Your task to perform on an android device: Show the shopping cart on ebay. Search for amazon basics triple a on ebay, select the first entry, add it to the cart, then select checkout. Image 0: 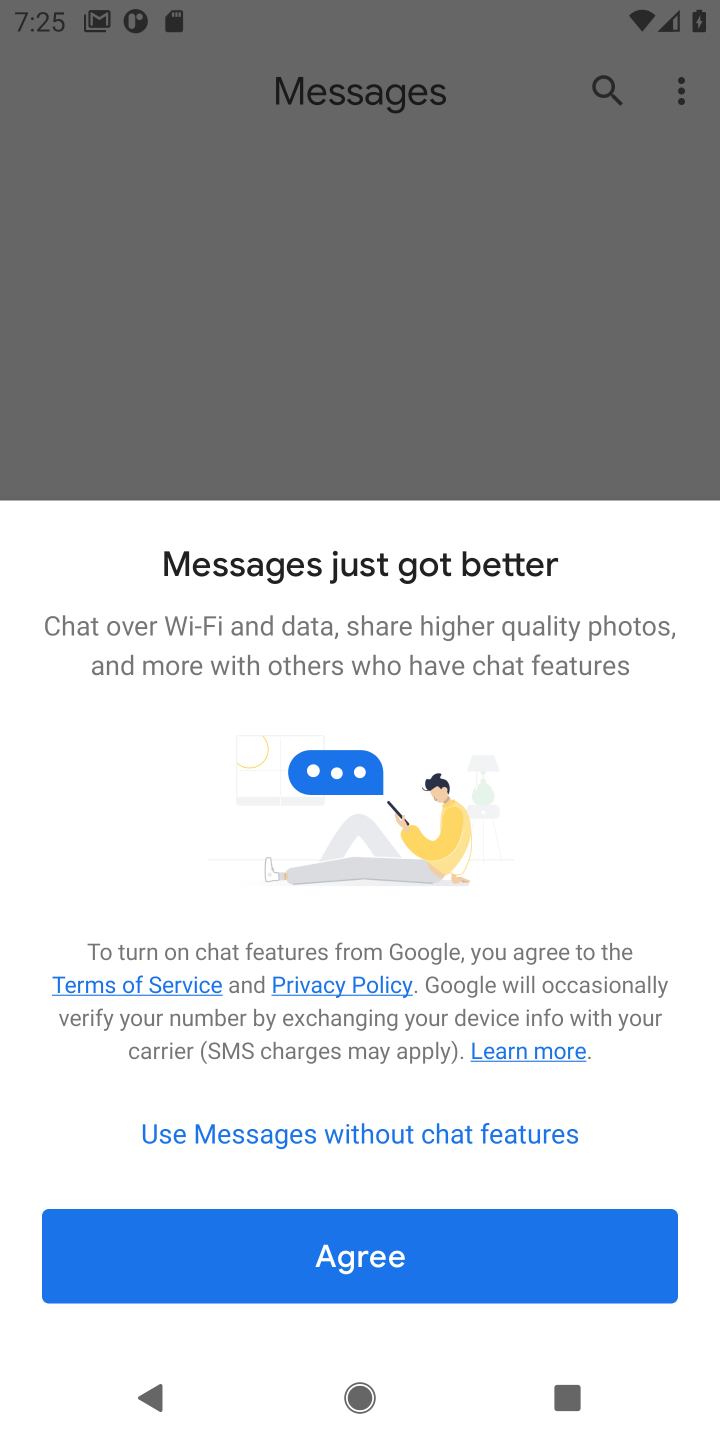
Step 0: press home button
Your task to perform on an android device: Show the shopping cart on ebay. Search for amazon basics triple a on ebay, select the first entry, add it to the cart, then select checkout. Image 1: 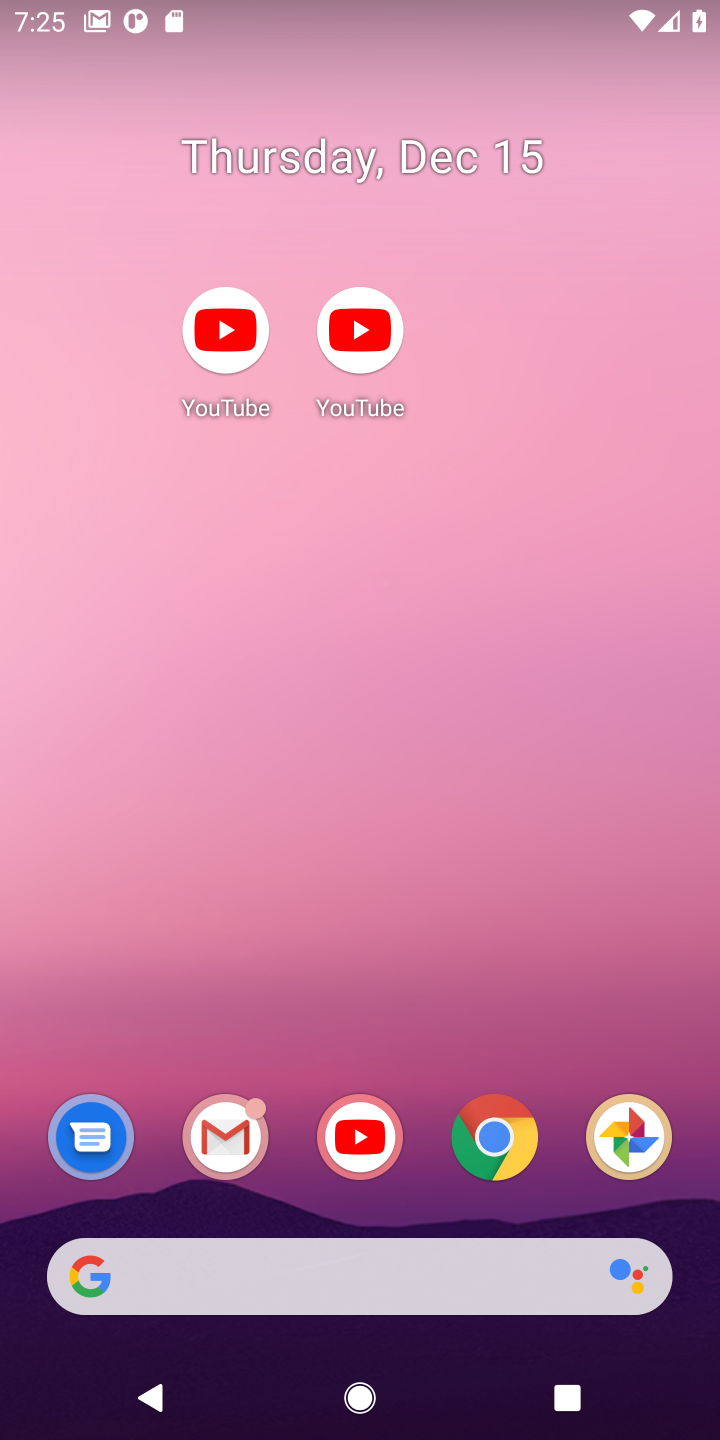
Step 1: drag from (306, 1148) to (352, 613)
Your task to perform on an android device: Show the shopping cart on ebay. Search for amazon basics triple a on ebay, select the first entry, add it to the cart, then select checkout. Image 2: 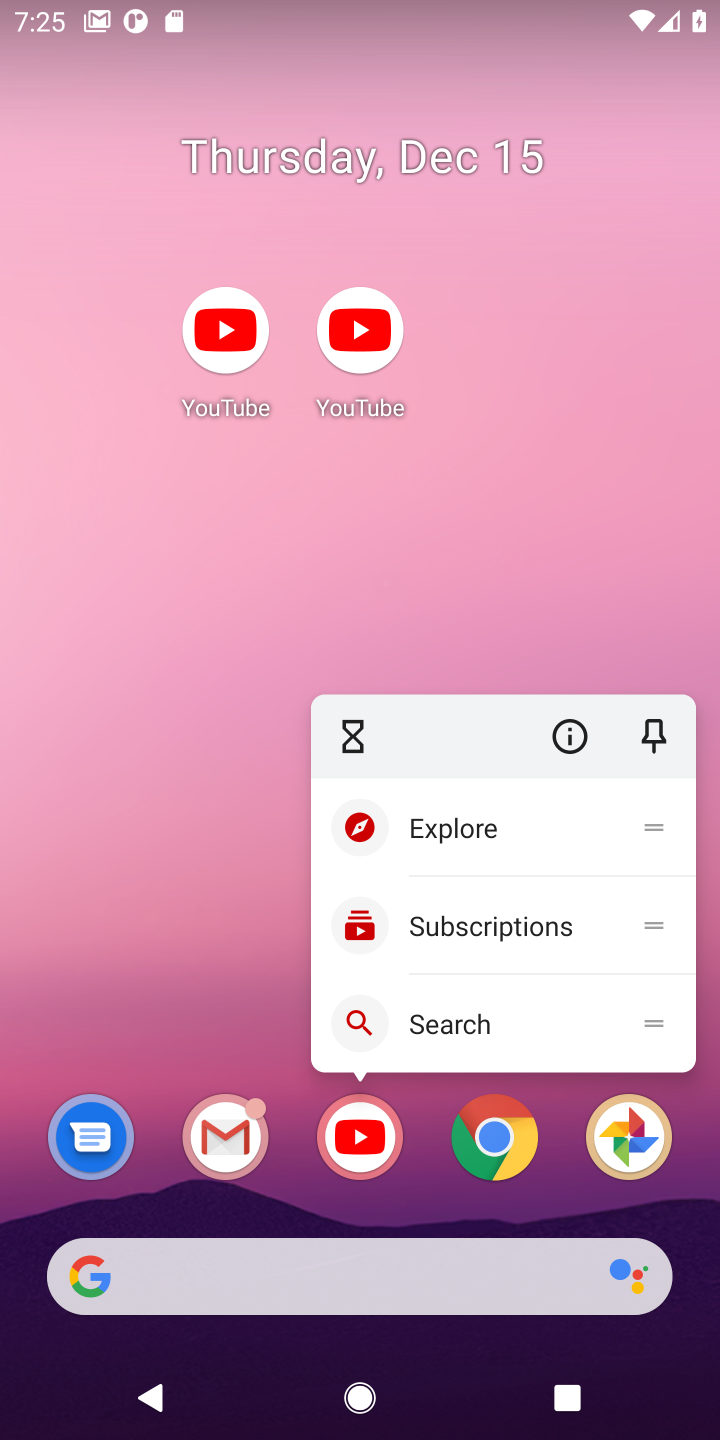
Step 2: click (173, 914)
Your task to perform on an android device: Show the shopping cart on ebay. Search for amazon basics triple a on ebay, select the first entry, add it to the cart, then select checkout. Image 3: 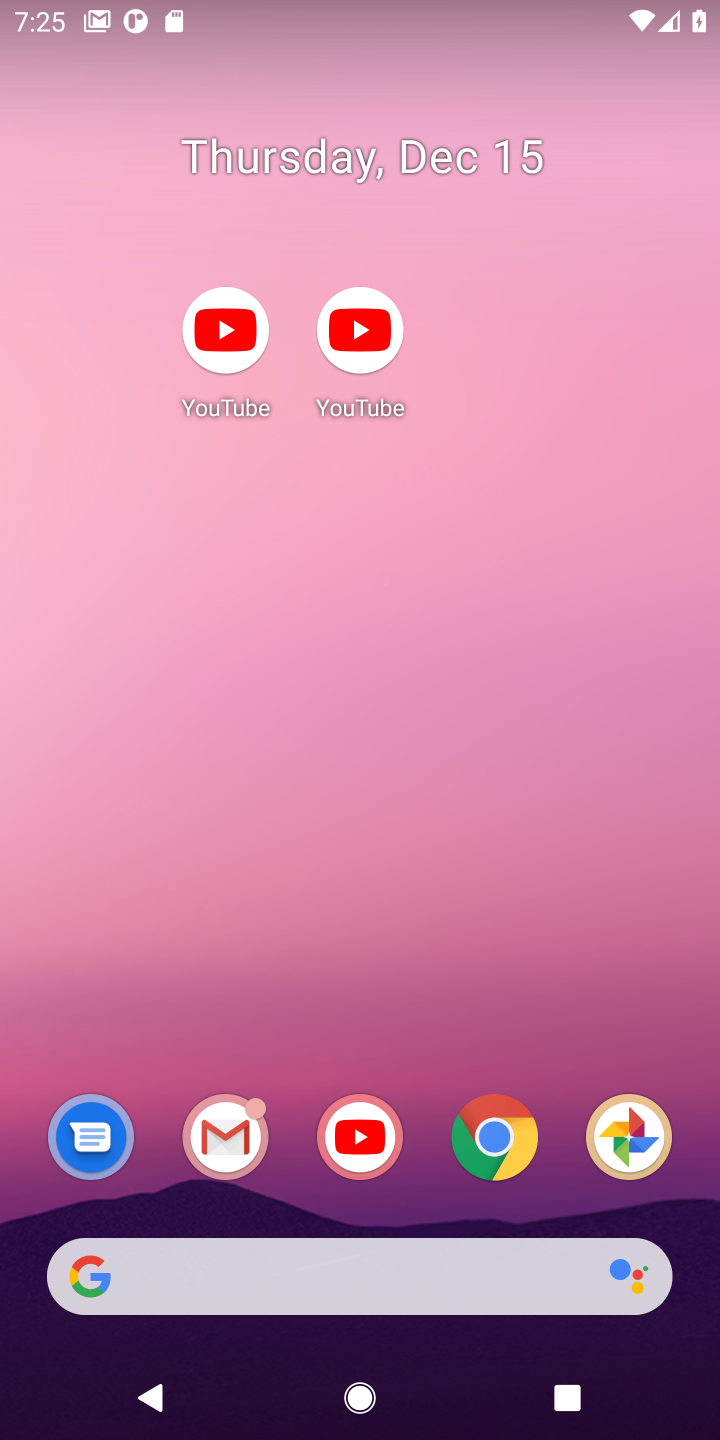
Step 3: drag from (236, 761) to (236, 563)
Your task to perform on an android device: Show the shopping cart on ebay. Search for amazon basics triple a on ebay, select the first entry, add it to the cart, then select checkout. Image 4: 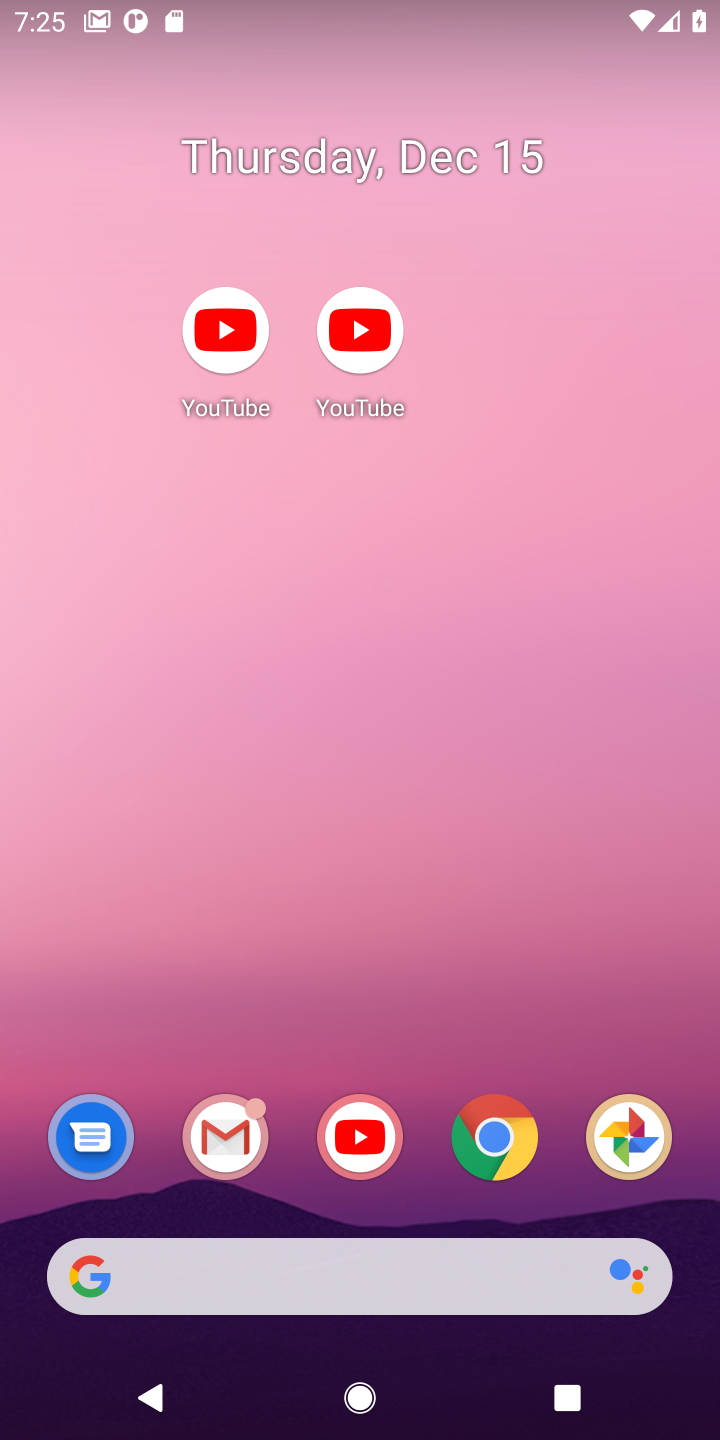
Step 4: drag from (303, 1235) to (315, 275)
Your task to perform on an android device: Show the shopping cart on ebay. Search for amazon basics triple a on ebay, select the first entry, add it to the cart, then select checkout. Image 5: 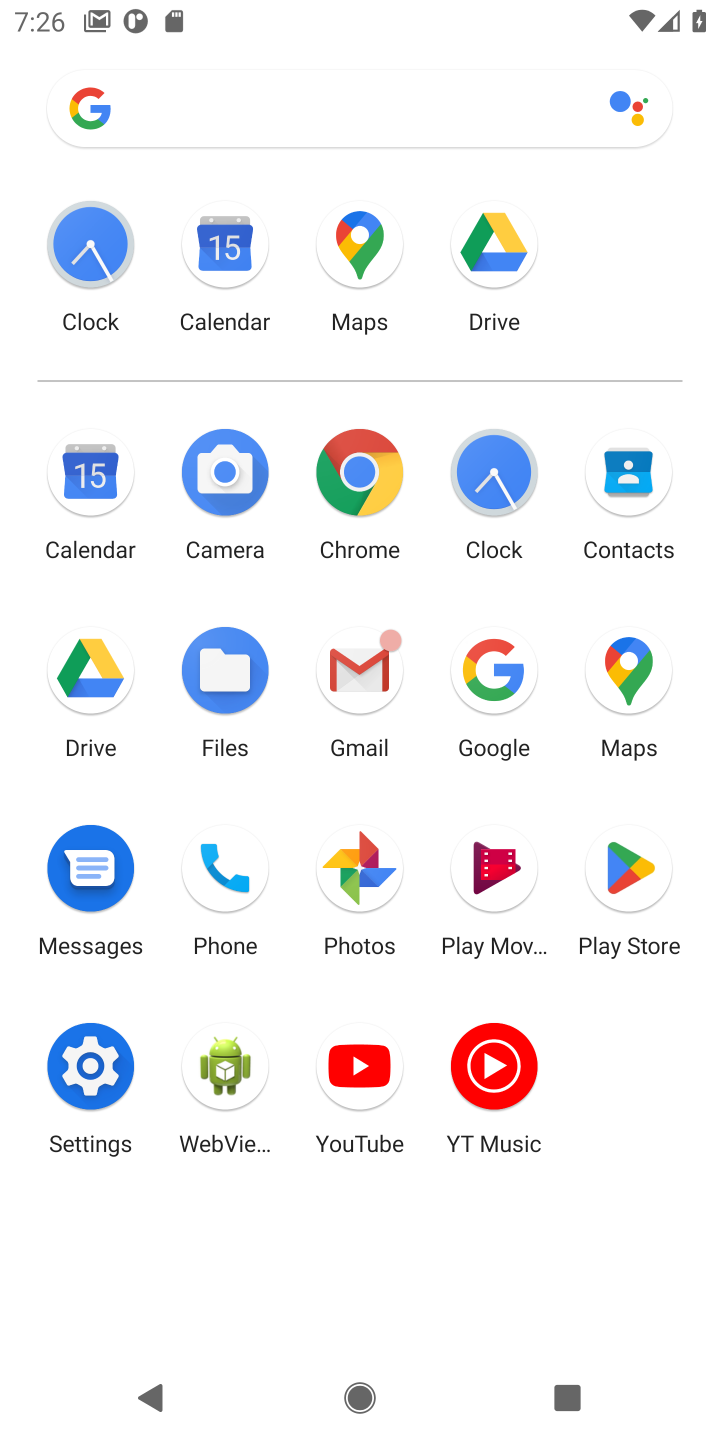
Step 5: click (482, 676)
Your task to perform on an android device: Show the shopping cart on ebay. Search for amazon basics triple a on ebay, select the first entry, add it to the cart, then select checkout. Image 6: 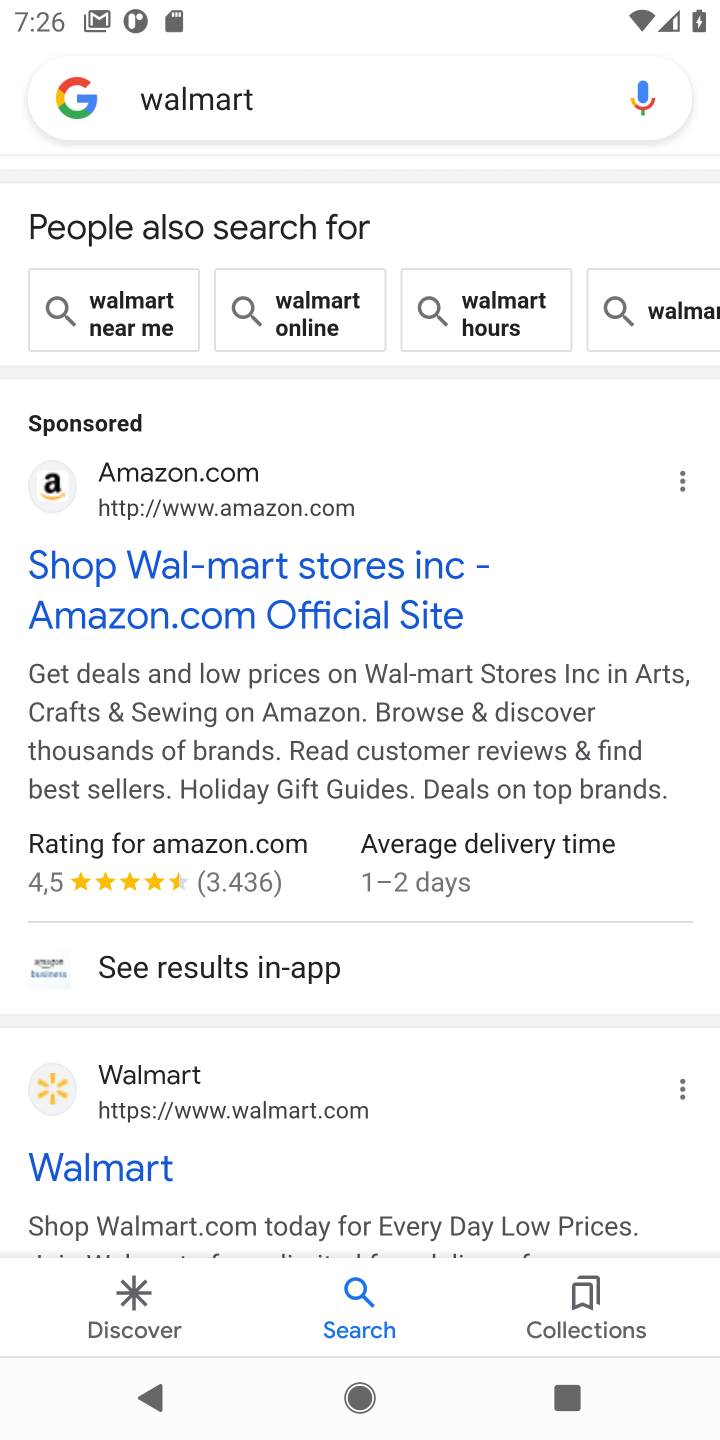
Step 6: click (156, 103)
Your task to perform on an android device: Show the shopping cart on ebay. Search for amazon basics triple a on ebay, select the first entry, add it to the cart, then select checkout. Image 7: 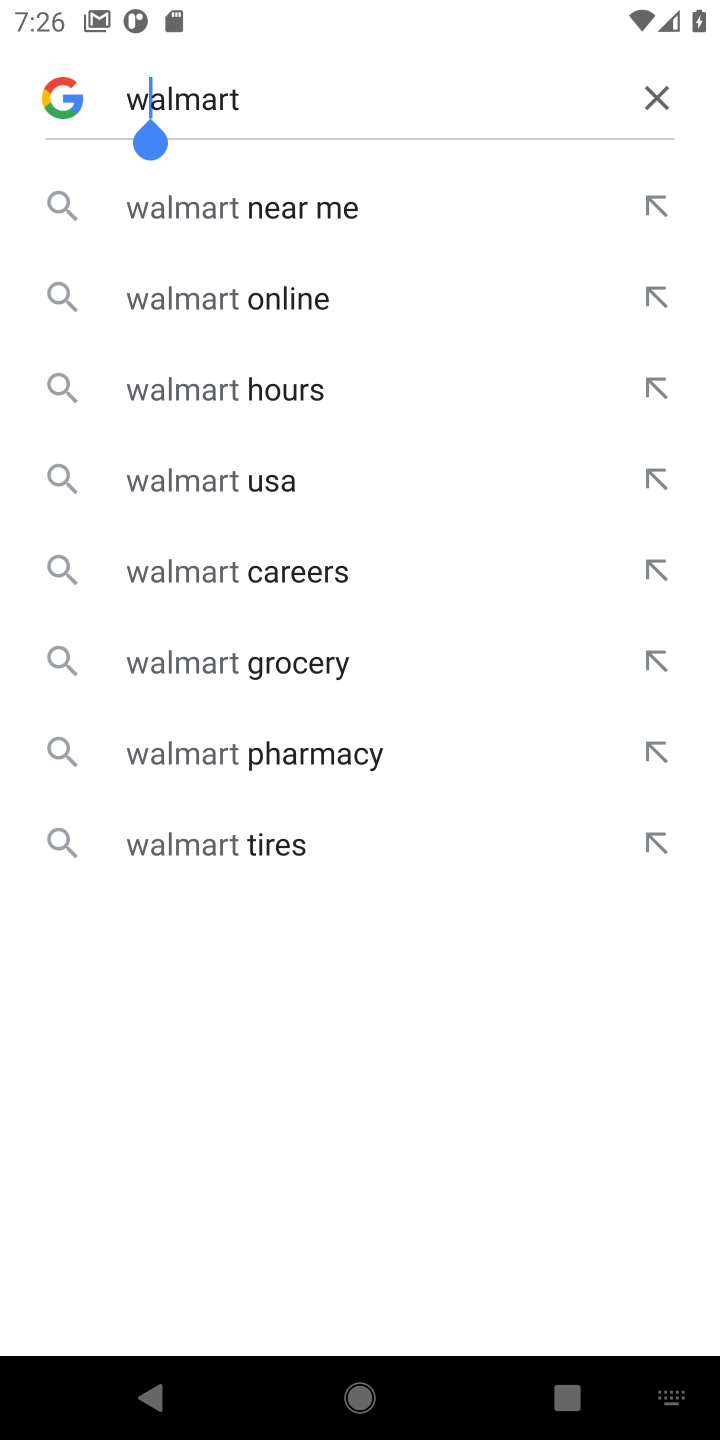
Step 7: click (649, 97)
Your task to perform on an android device: Show the shopping cart on ebay. Search for amazon basics triple a on ebay, select the first entry, add it to the cart, then select checkout. Image 8: 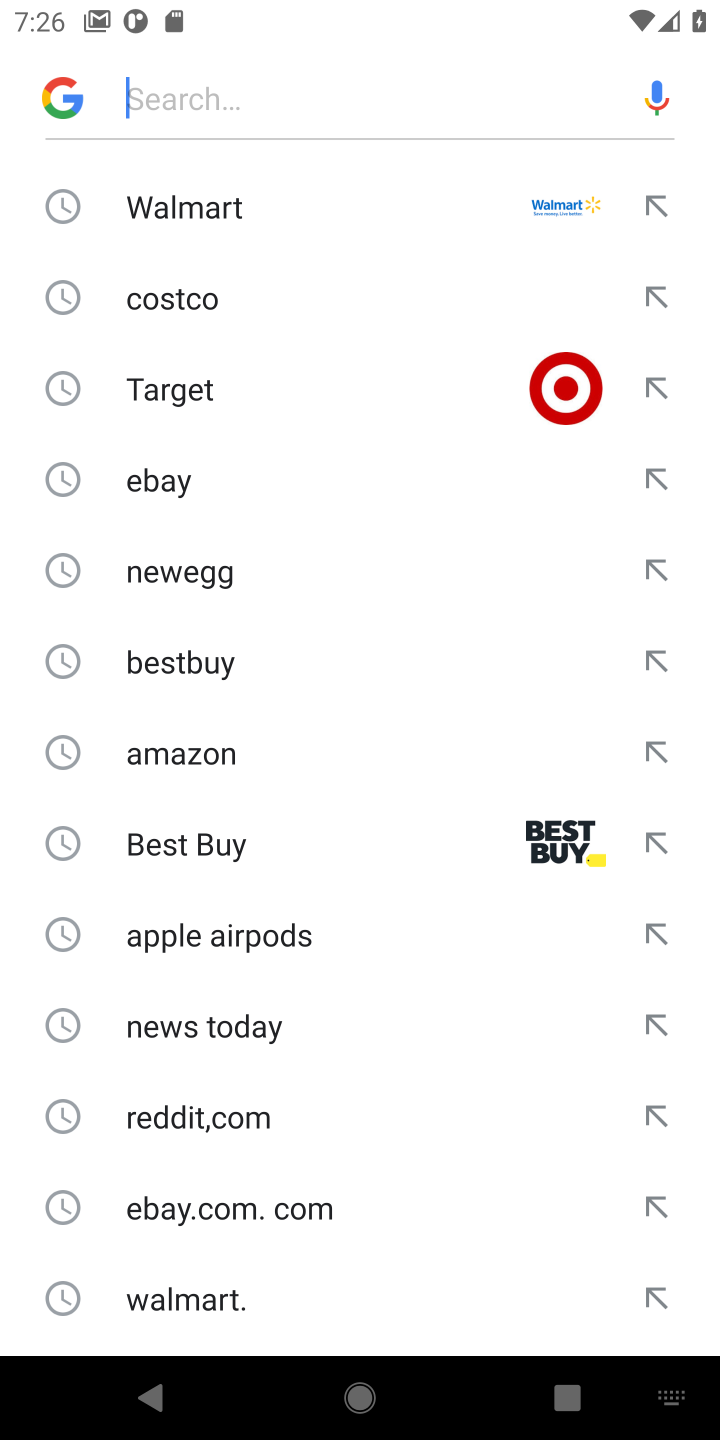
Step 8: click (170, 469)
Your task to perform on an android device: Show the shopping cart on ebay. Search for amazon basics triple a on ebay, select the first entry, add it to the cart, then select checkout. Image 9: 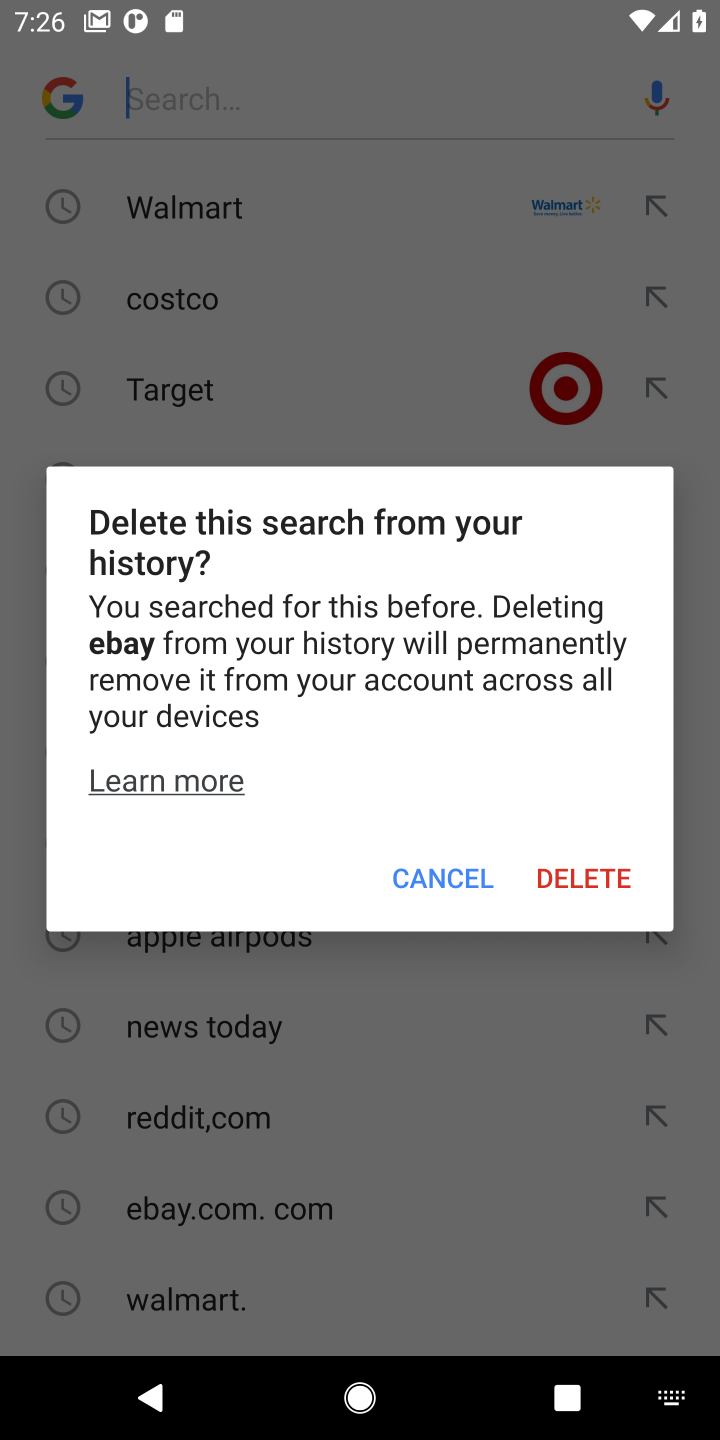
Step 9: click (441, 888)
Your task to perform on an android device: Show the shopping cart on ebay. Search for amazon basics triple a on ebay, select the first entry, add it to the cart, then select checkout. Image 10: 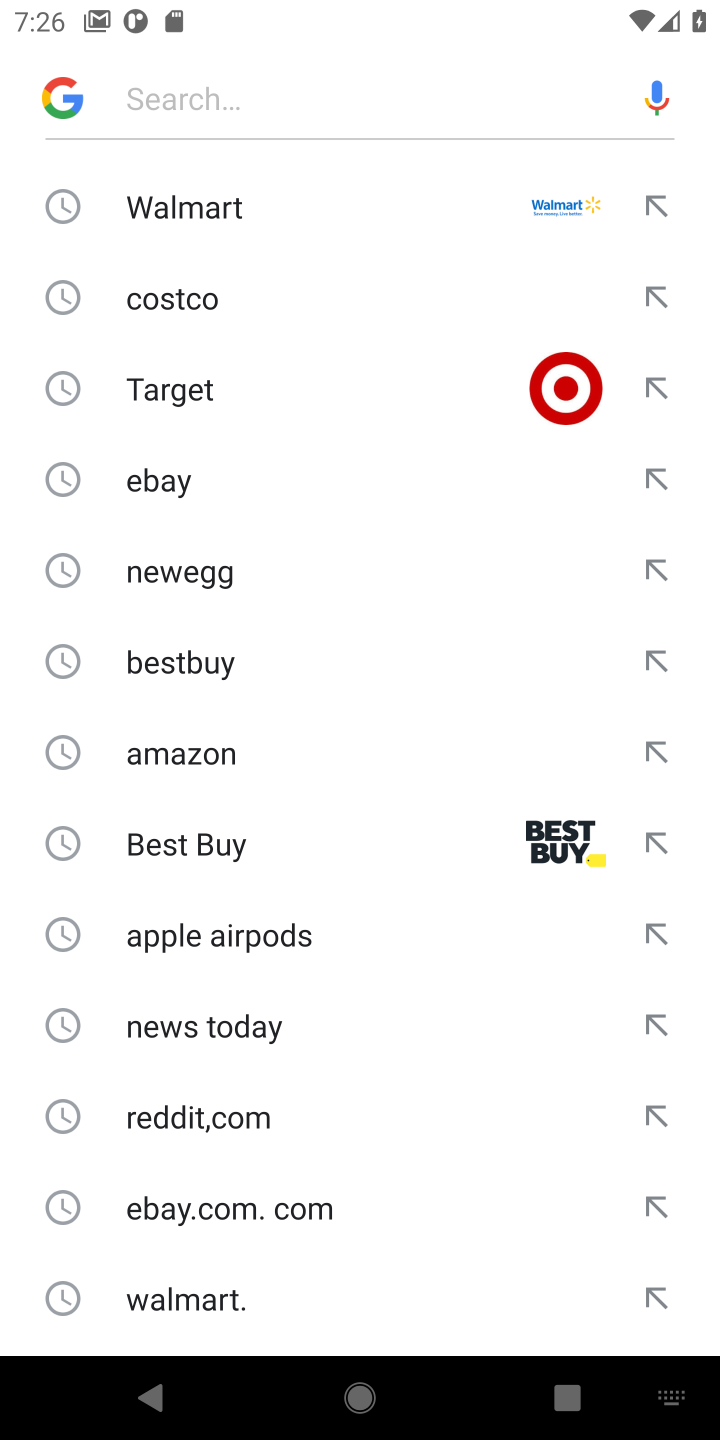
Step 10: click (669, 492)
Your task to perform on an android device: Show the shopping cart on ebay. Search for amazon basics triple a on ebay, select the first entry, add it to the cart, then select checkout. Image 11: 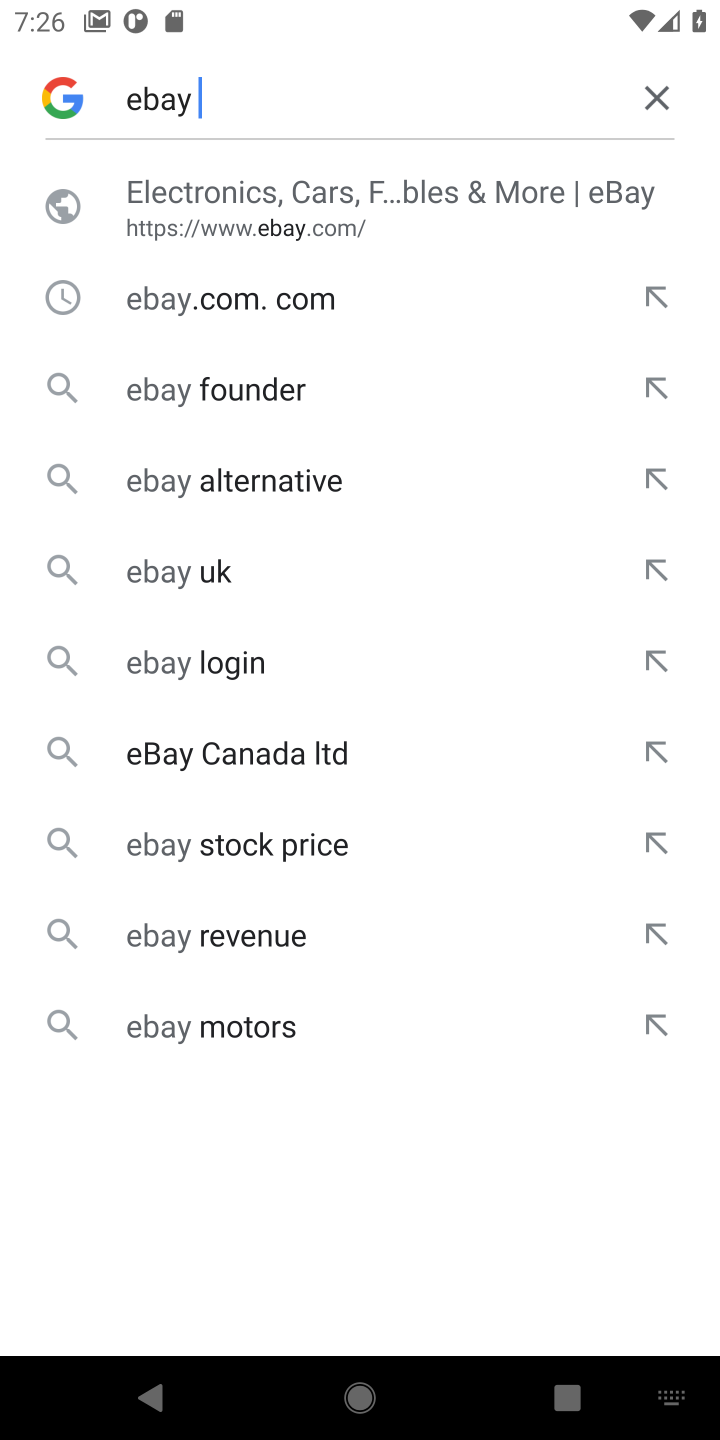
Step 11: click (250, 226)
Your task to perform on an android device: Show the shopping cart on ebay. Search for amazon basics triple a on ebay, select the first entry, add it to the cart, then select checkout. Image 12: 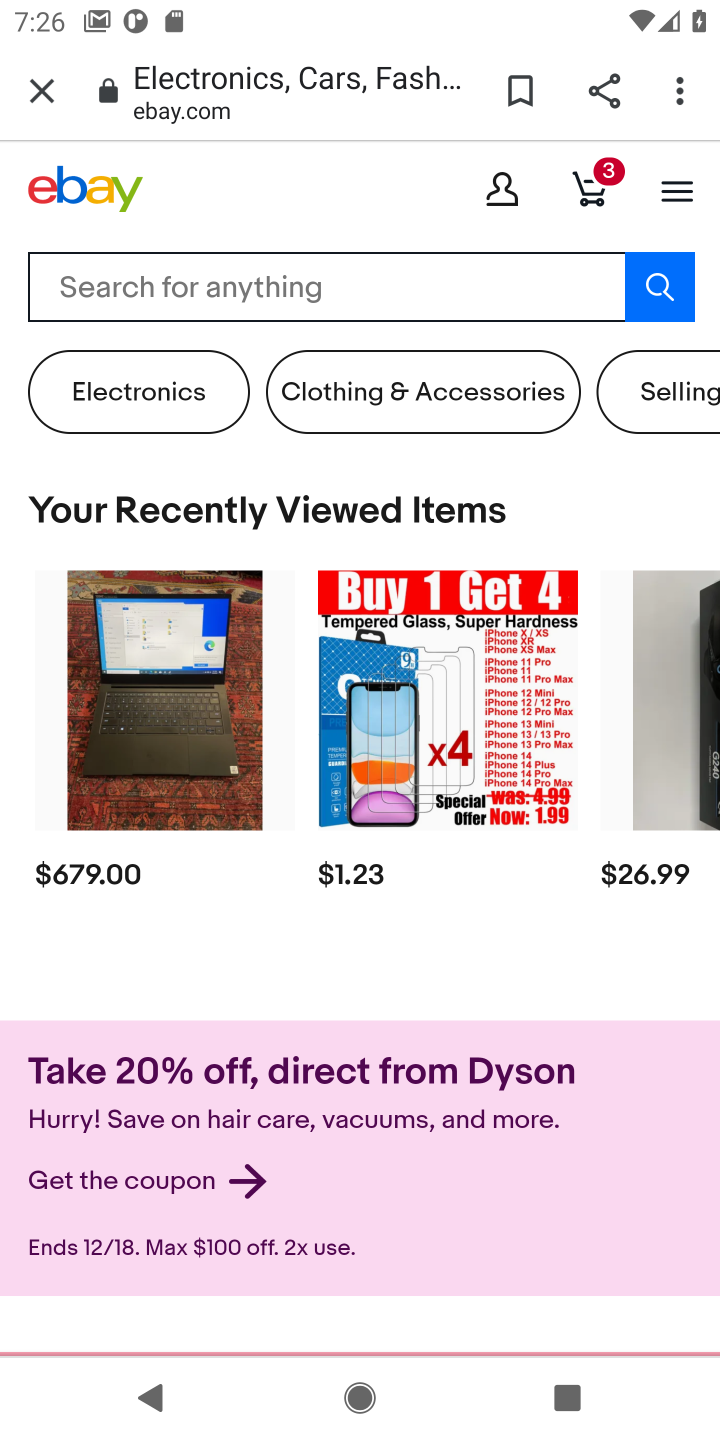
Step 12: click (589, 183)
Your task to perform on an android device: Show the shopping cart on ebay. Search for amazon basics triple a on ebay, select the first entry, add it to the cart, then select checkout. Image 13: 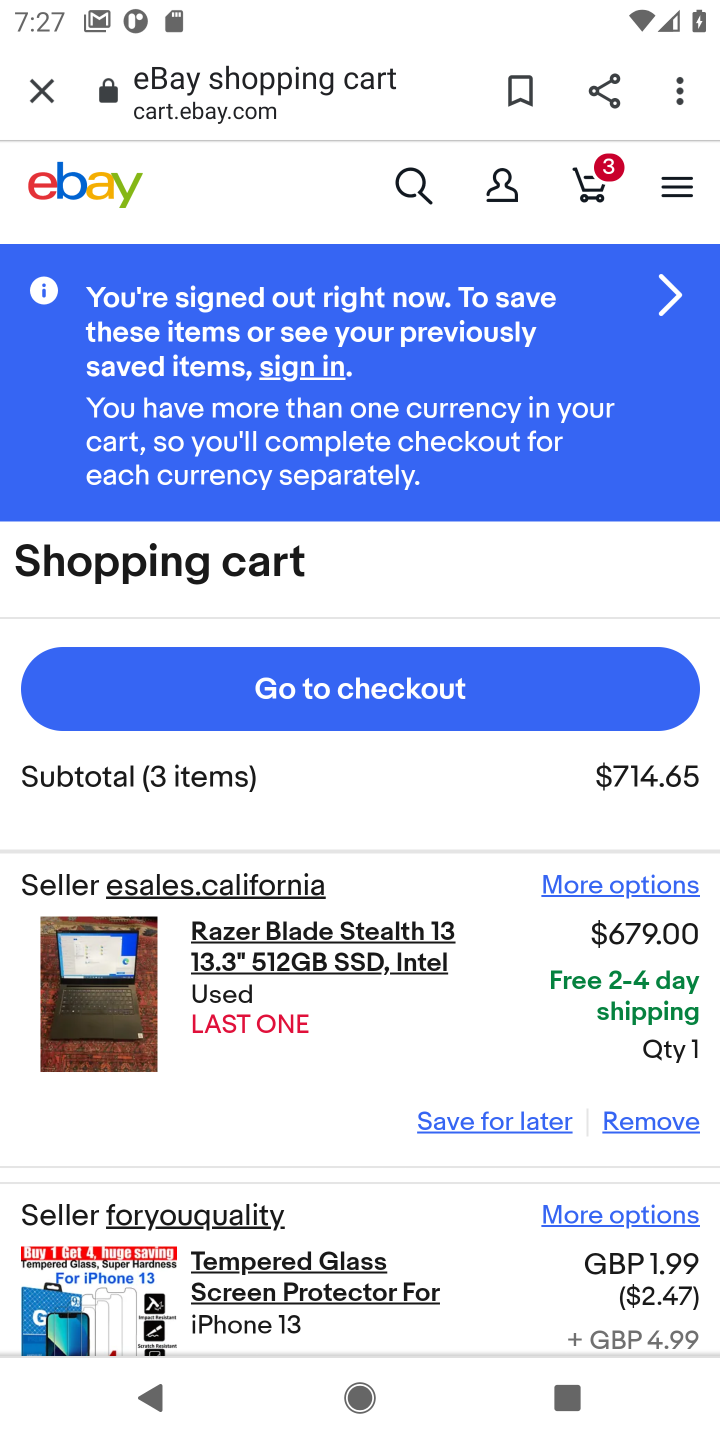
Step 13: click (425, 174)
Your task to perform on an android device: Show the shopping cart on ebay. Search for amazon basics triple a on ebay, select the first entry, add it to the cart, then select checkout. Image 14: 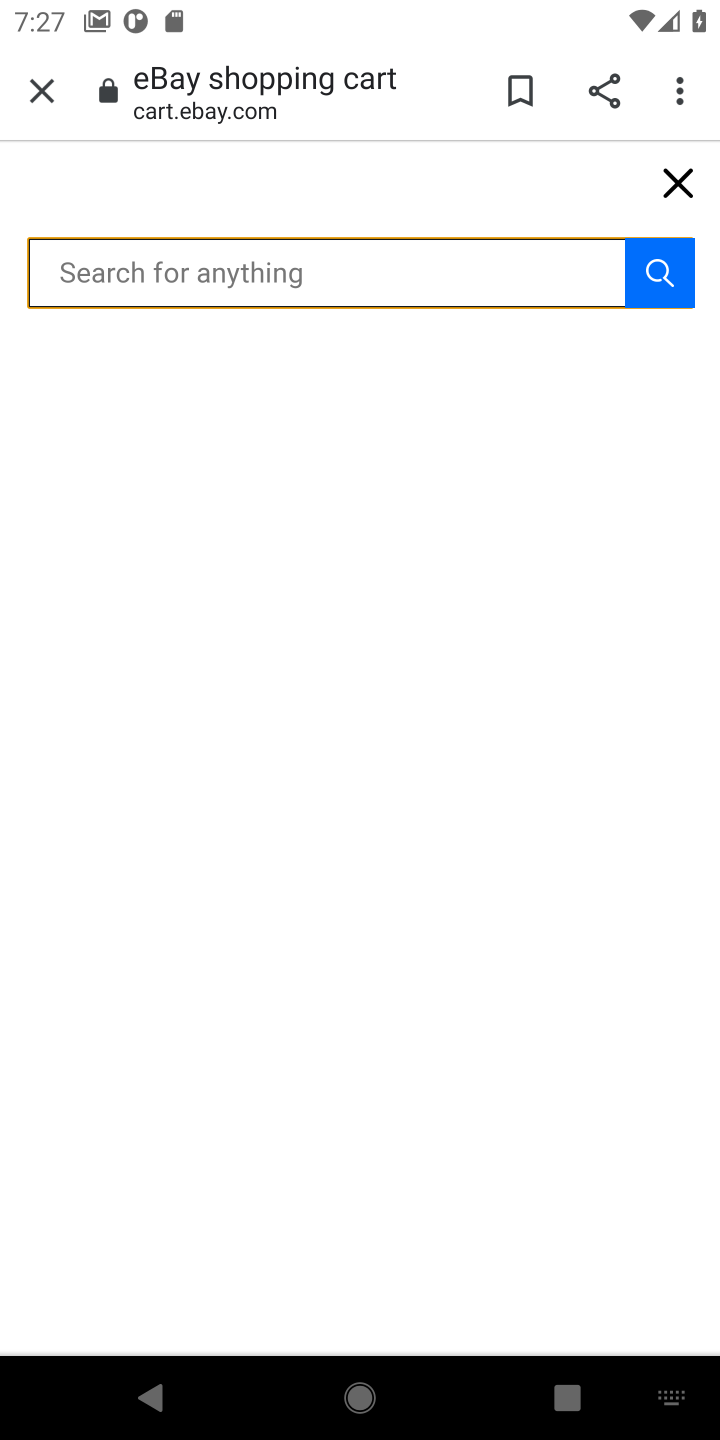
Step 14: type "amazon basics triple a"
Your task to perform on an android device: Show the shopping cart on ebay. Search for amazon basics triple a on ebay, select the first entry, add it to the cart, then select checkout. Image 15: 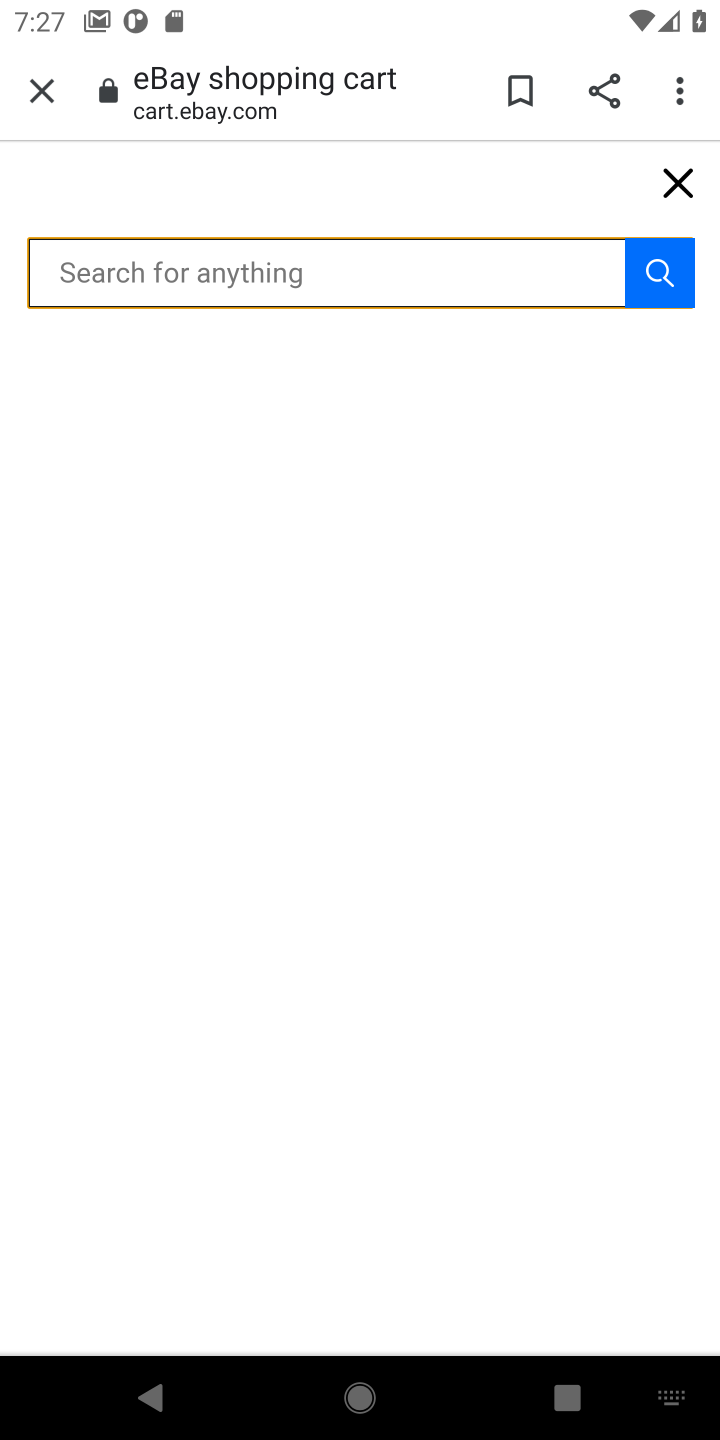
Step 15: click (664, 278)
Your task to perform on an android device: Show the shopping cart on ebay. Search for amazon basics triple a on ebay, select the first entry, add it to the cart, then select checkout. Image 16: 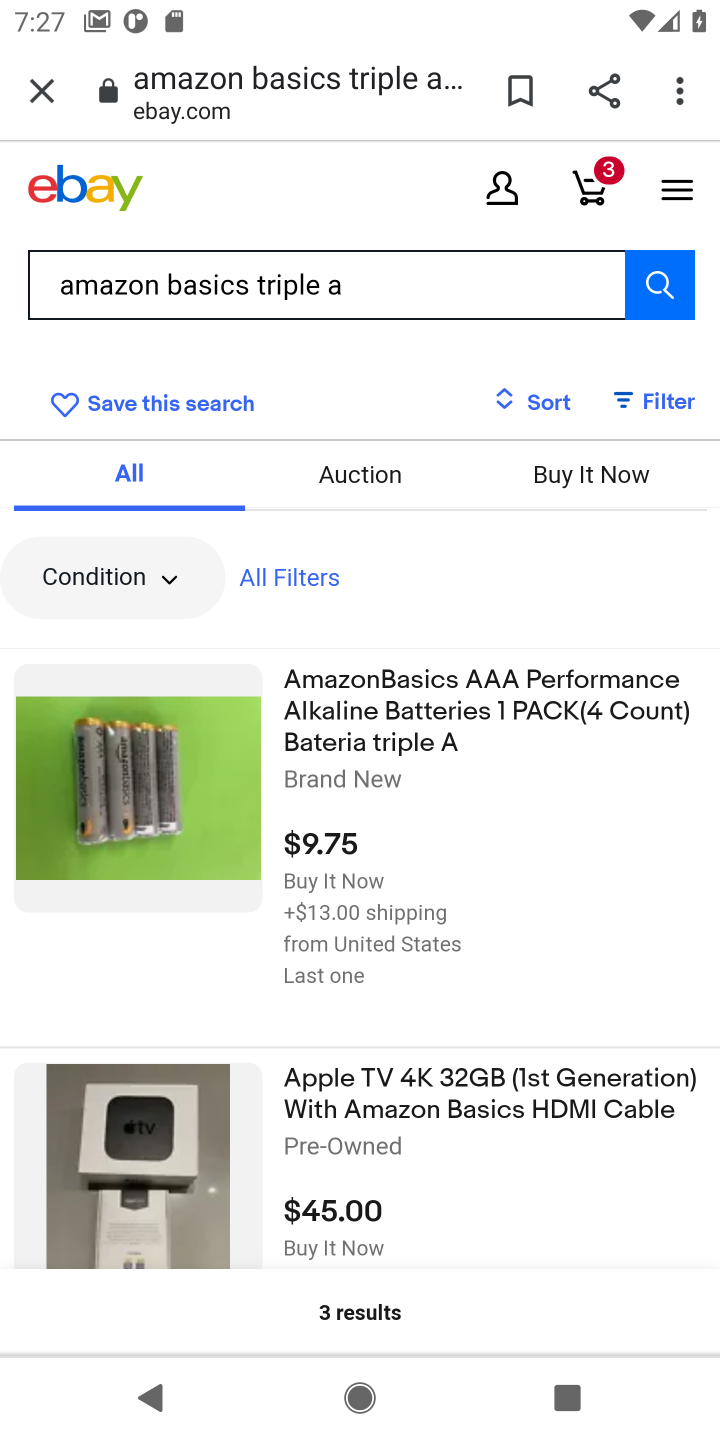
Step 16: click (429, 710)
Your task to perform on an android device: Show the shopping cart on ebay. Search for amazon basics triple a on ebay, select the first entry, add it to the cart, then select checkout. Image 17: 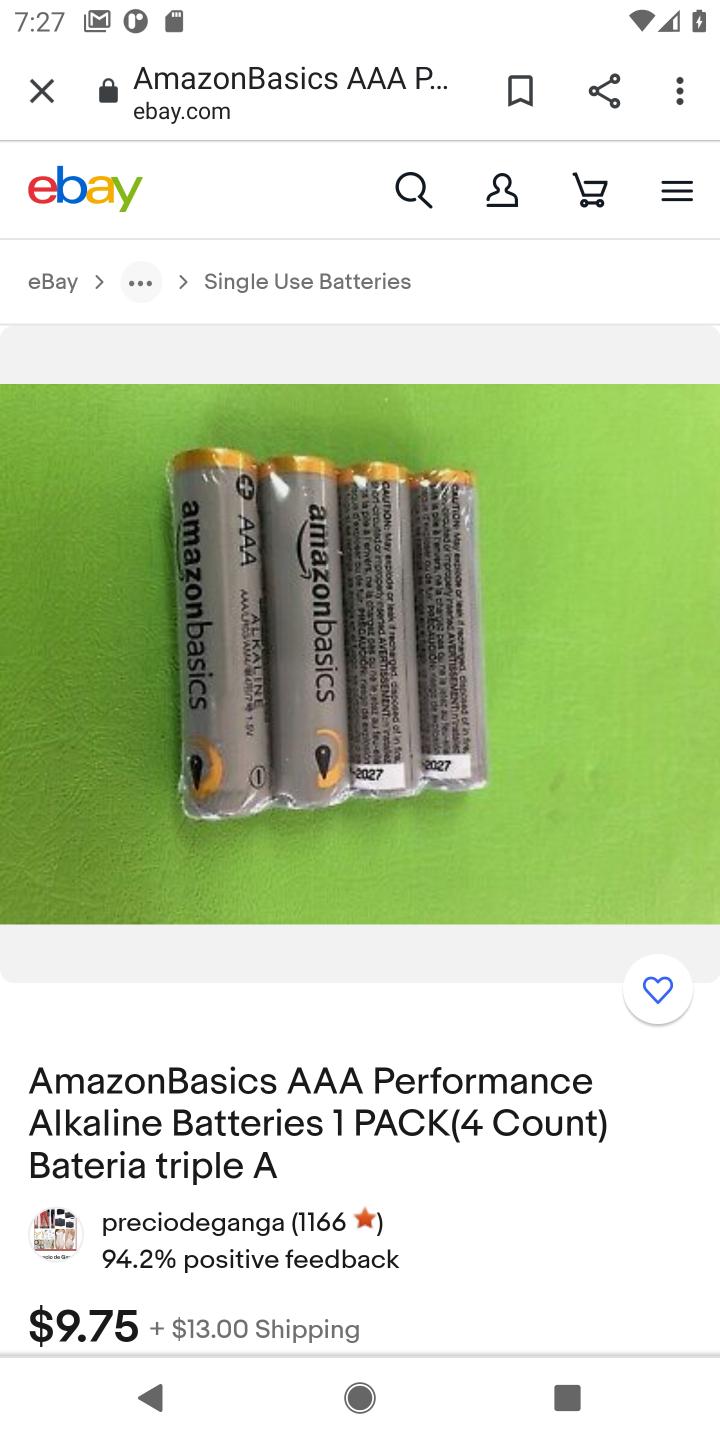
Step 17: drag from (363, 1183) to (326, 608)
Your task to perform on an android device: Show the shopping cart on ebay. Search for amazon basics triple a on ebay, select the first entry, add it to the cart, then select checkout. Image 18: 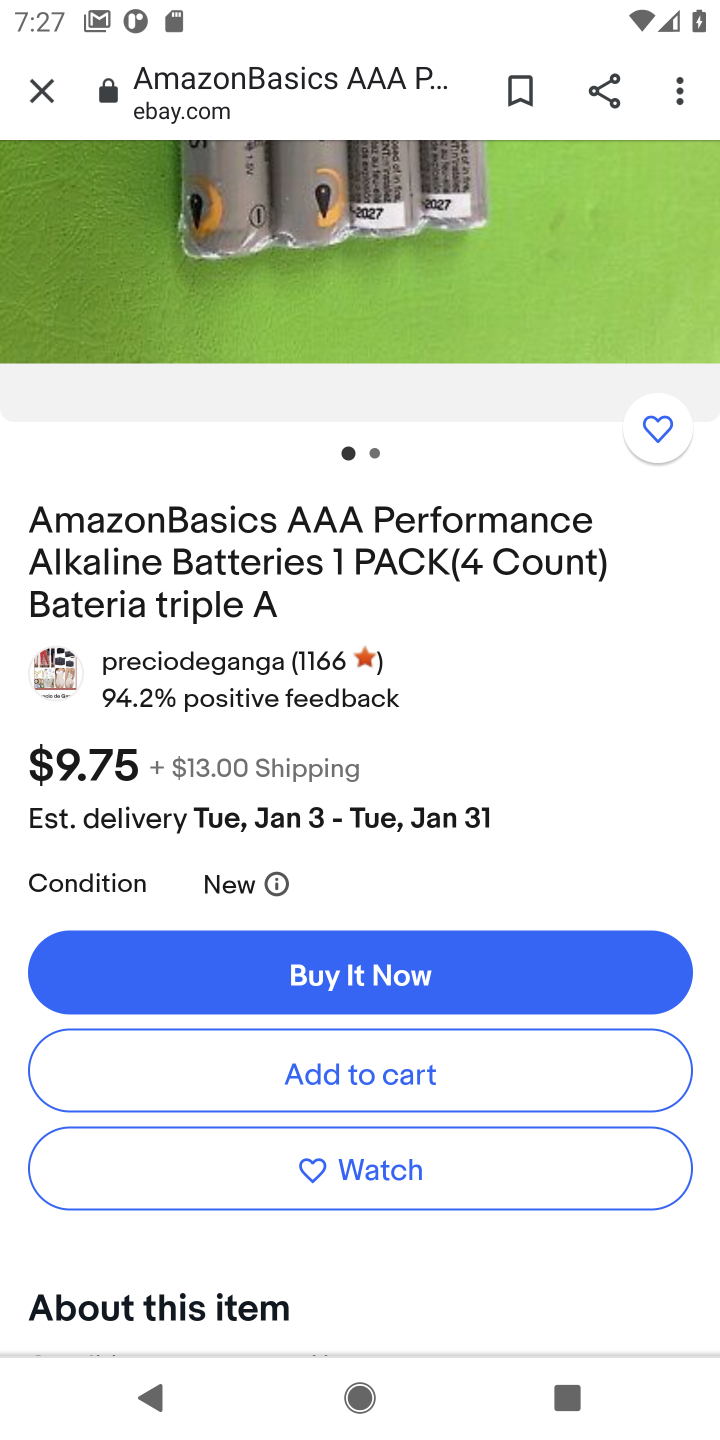
Step 18: click (386, 1075)
Your task to perform on an android device: Show the shopping cart on ebay. Search for amazon basics triple a on ebay, select the first entry, add it to the cart, then select checkout. Image 19: 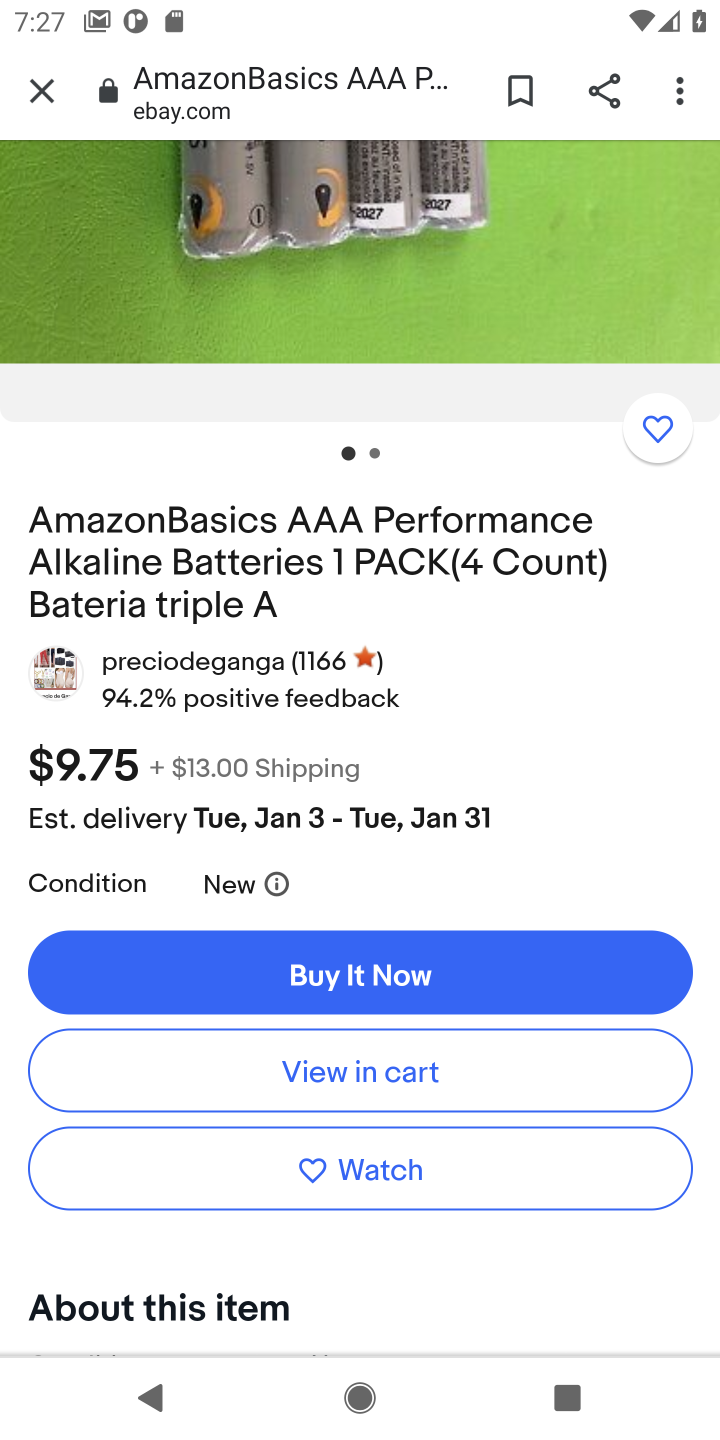
Step 19: click (386, 1075)
Your task to perform on an android device: Show the shopping cart on ebay. Search for amazon basics triple a on ebay, select the first entry, add it to the cart, then select checkout. Image 20: 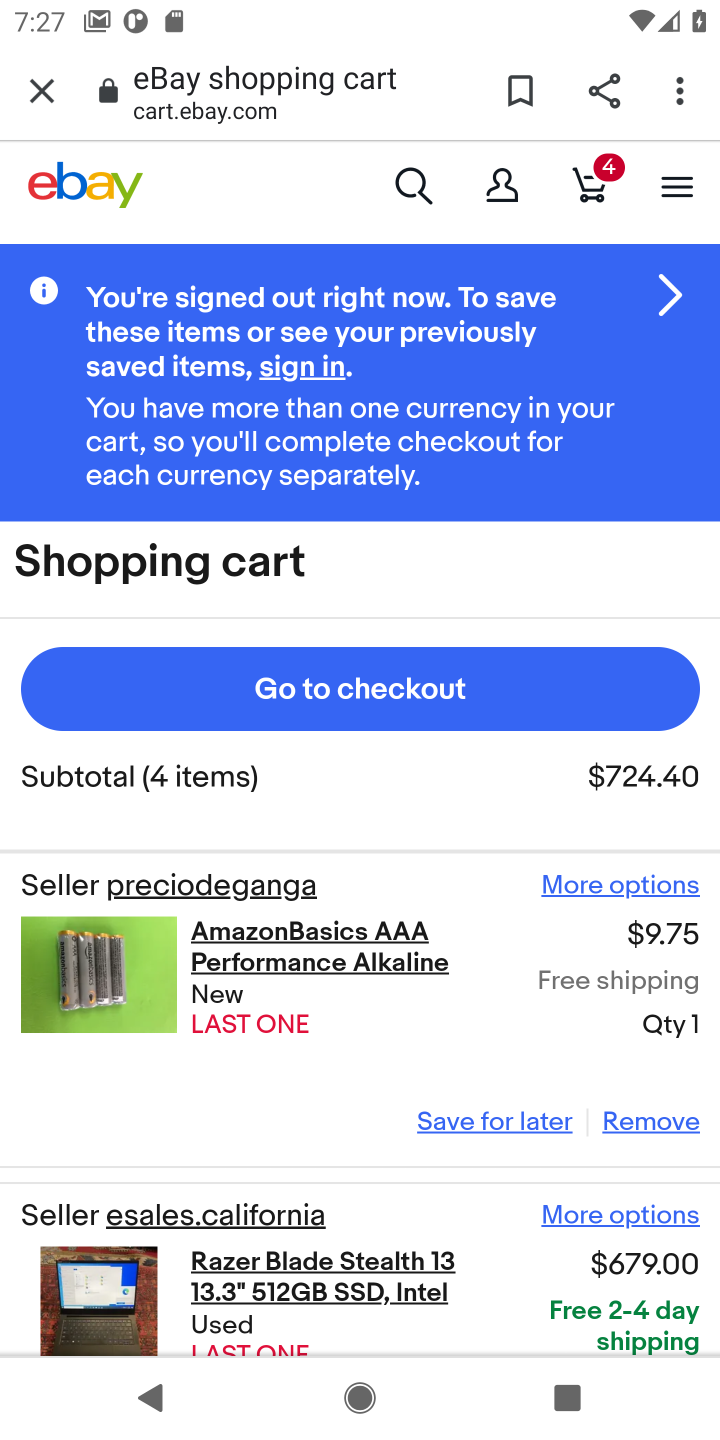
Step 20: click (324, 679)
Your task to perform on an android device: Show the shopping cart on ebay. Search for amazon basics triple a on ebay, select the first entry, add it to the cart, then select checkout. Image 21: 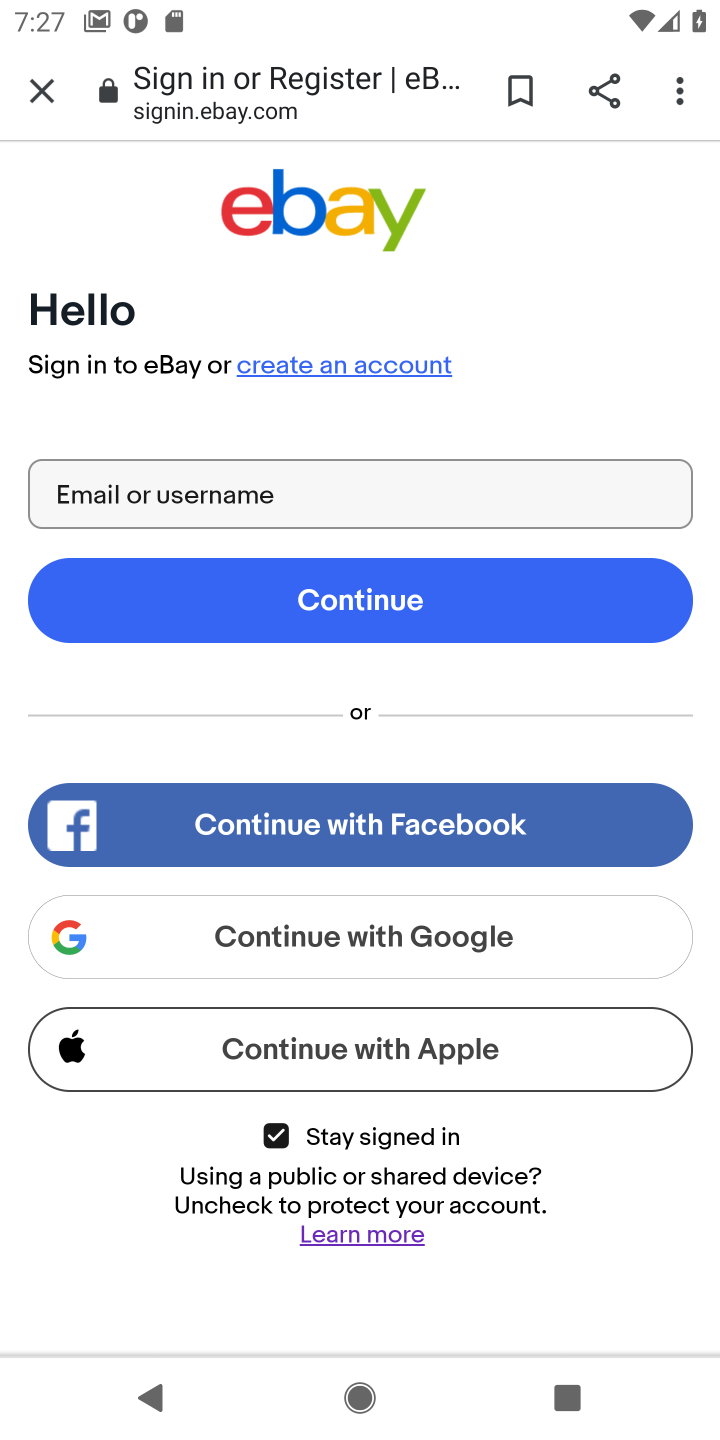
Step 21: task complete